Your task to perform on an android device: open the mobile data screen to see how much data has been used Image 0: 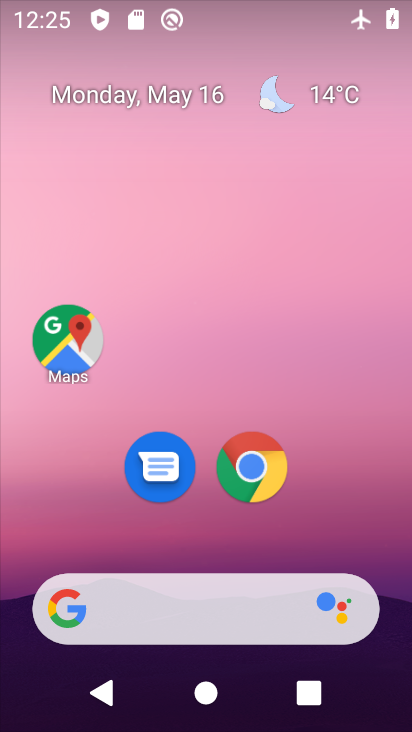
Step 0: drag from (285, 550) to (409, 246)
Your task to perform on an android device: open the mobile data screen to see how much data has been used Image 1: 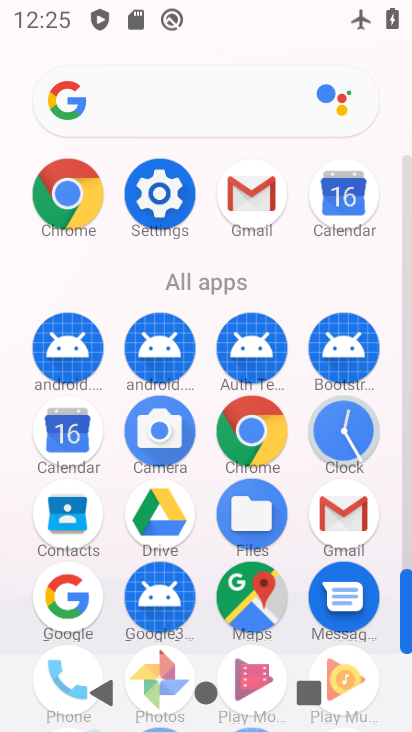
Step 1: click (153, 190)
Your task to perform on an android device: open the mobile data screen to see how much data has been used Image 2: 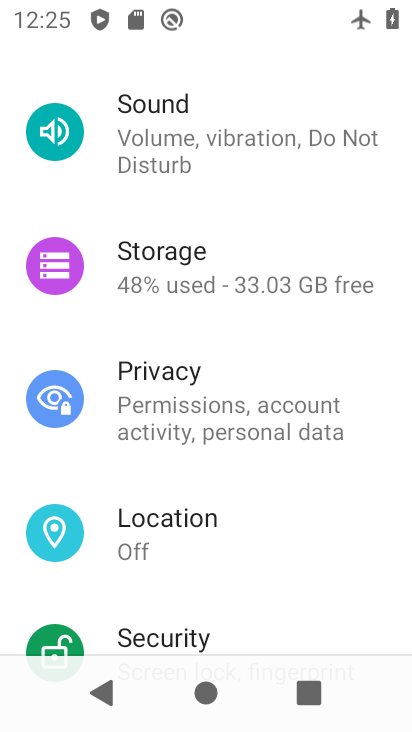
Step 2: drag from (241, 159) to (124, 598)
Your task to perform on an android device: open the mobile data screen to see how much data has been used Image 3: 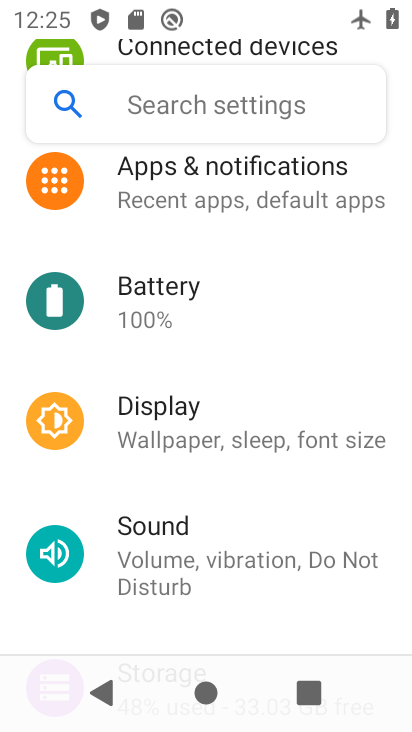
Step 3: drag from (298, 127) to (193, 486)
Your task to perform on an android device: open the mobile data screen to see how much data has been used Image 4: 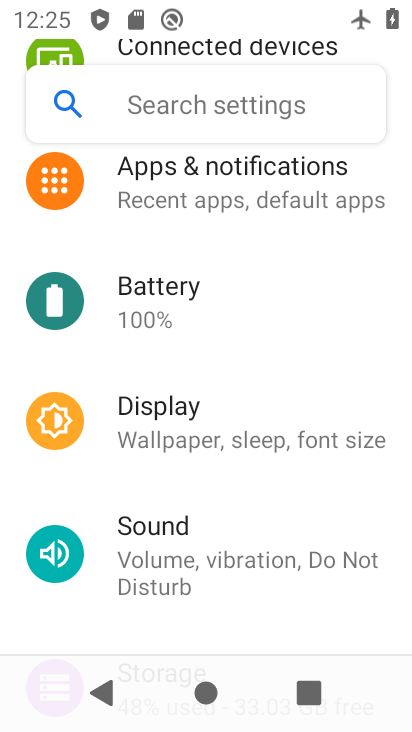
Step 4: drag from (260, 258) to (193, 499)
Your task to perform on an android device: open the mobile data screen to see how much data has been used Image 5: 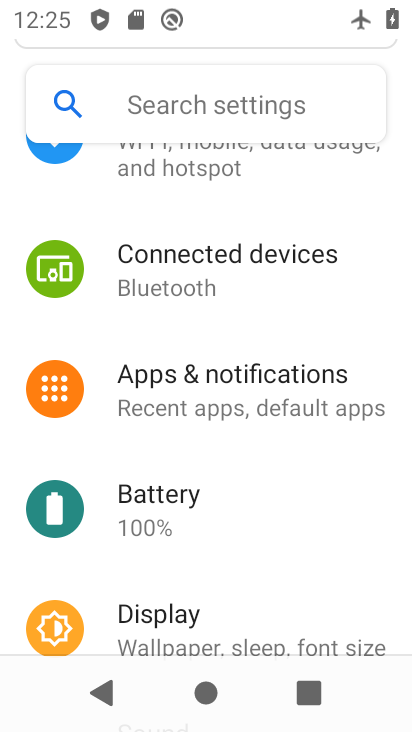
Step 5: drag from (306, 201) to (216, 450)
Your task to perform on an android device: open the mobile data screen to see how much data has been used Image 6: 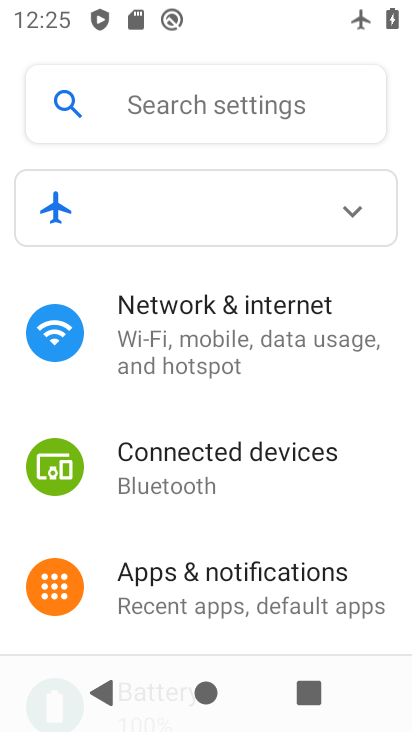
Step 6: click (242, 301)
Your task to perform on an android device: open the mobile data screen to see how much data has been used Image 7: 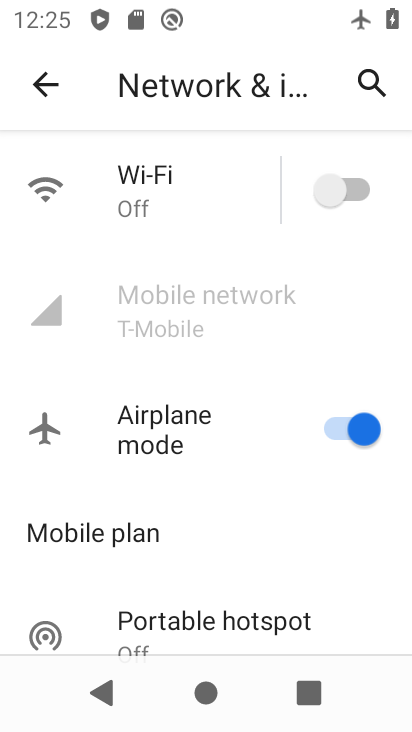
Step 7: click (234, 302)
Your task to perform on an android device: open the mobile data screen to see how much data has been used Image 8: 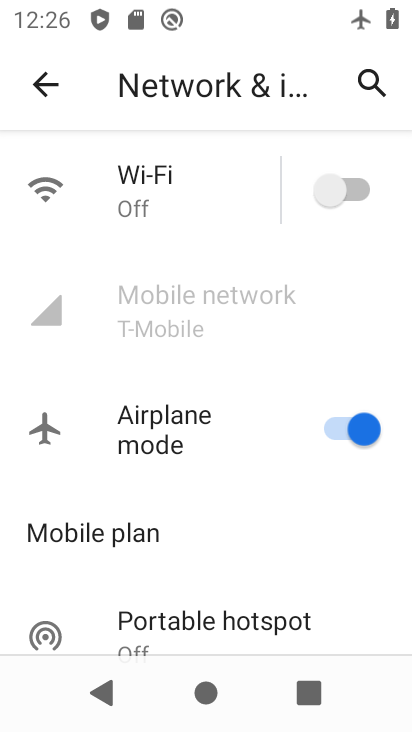
Step 8: task complete